Your task to perform on an android device: Turn on the flashlight Image 0: 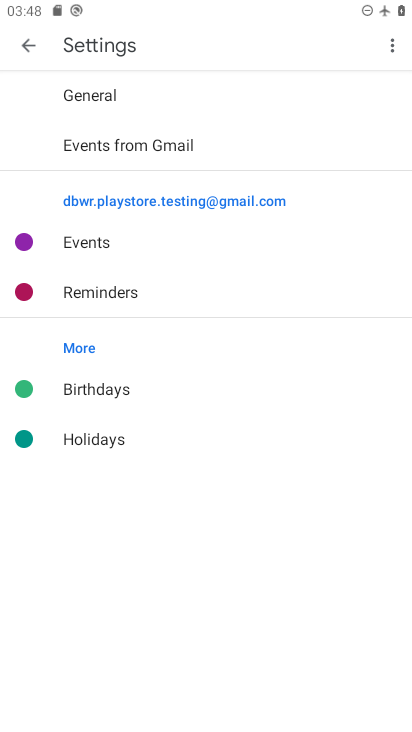
Step 0: task impossible